Your task to perform on an android device: Open Yahoo.com Image 0: 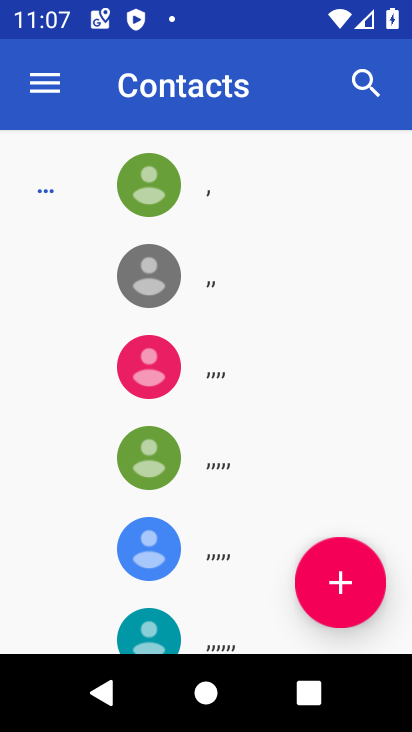
Step 0: press home button
Your task to perform on an android device: Open Yahoo.com Image 1: 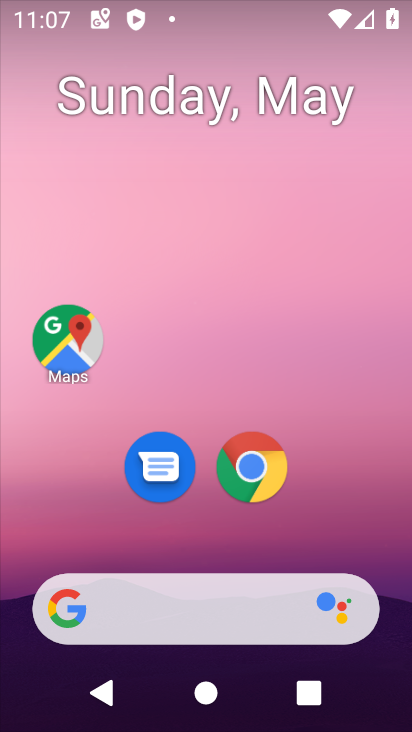
Step 1: click (256, 468)
Your task to perform on an android device: Open Yahoo.com Image 2: 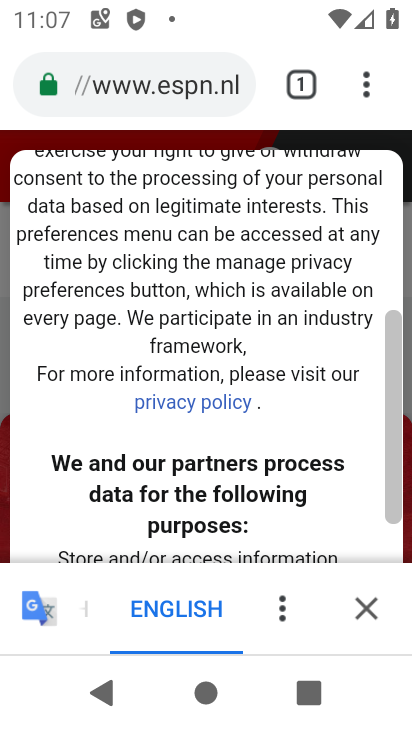
Step 2: click (113, 80)
Your task to perform on an android device: Open Yahoo.com Image 3: 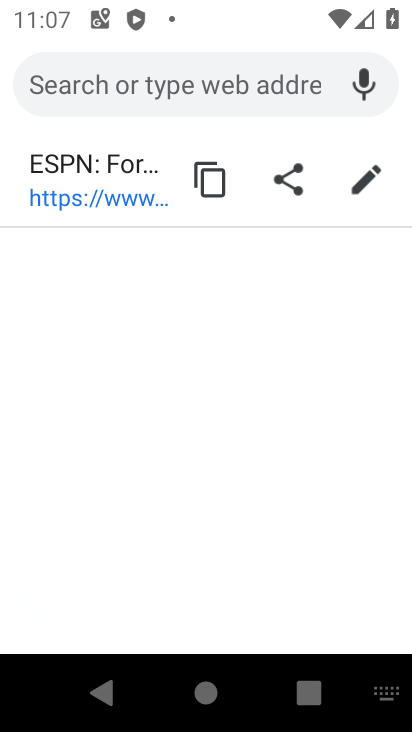
Step 3: type "yahoo.com"
Your task to perform on an android device: Open Yahoo.com Image 4: 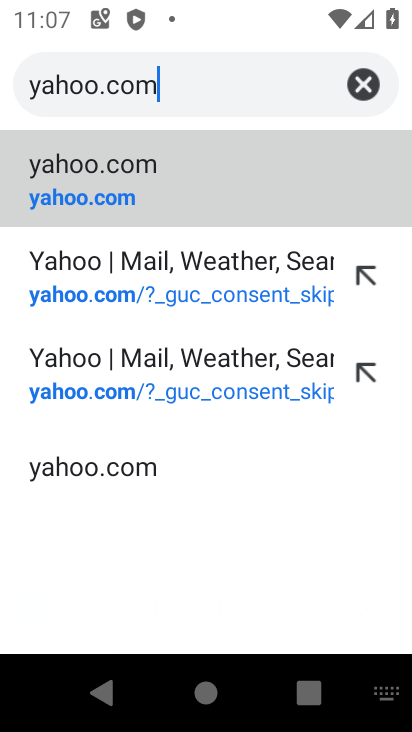
Step 4: click (52, 192)
Your task to perform on an android device: Open Yahoo.com Image 5: 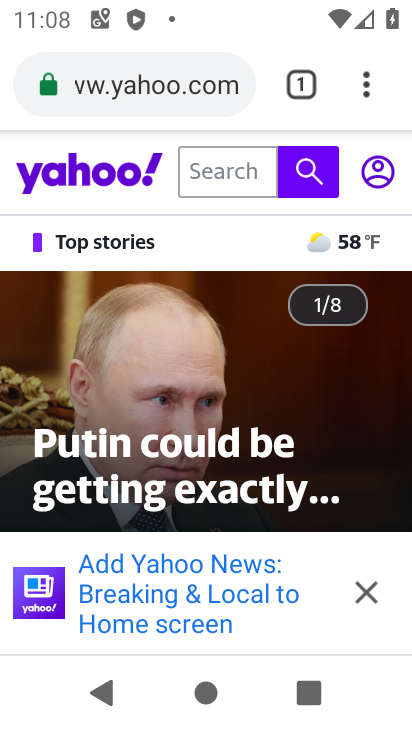
Step 5: task complete